Your task to perform on an android device: toggle data saver in the chrome app Image 0: 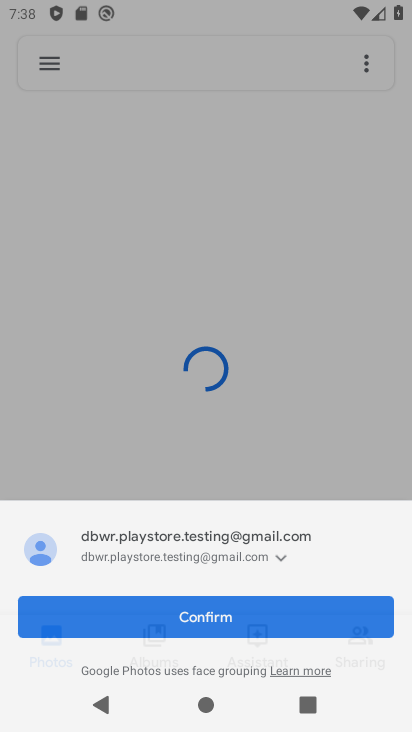
Step 0: press home button
Your task to perform on an android device: toggle data saver in the chrome app Image 1: 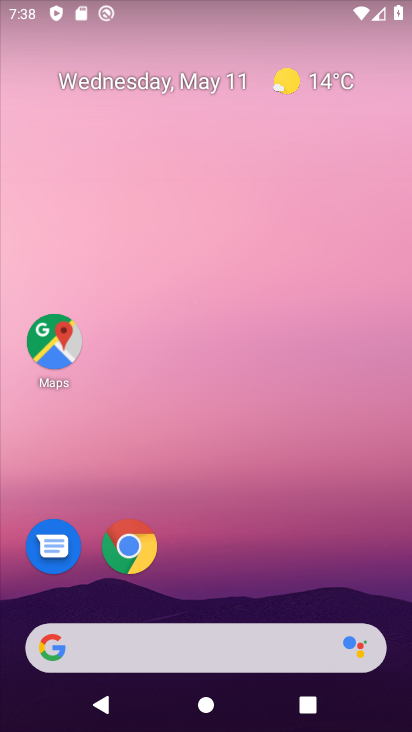
Step 1: click (133, 551)
Your task to perform on an android device: toggle data saver in the chrome app Image 2: 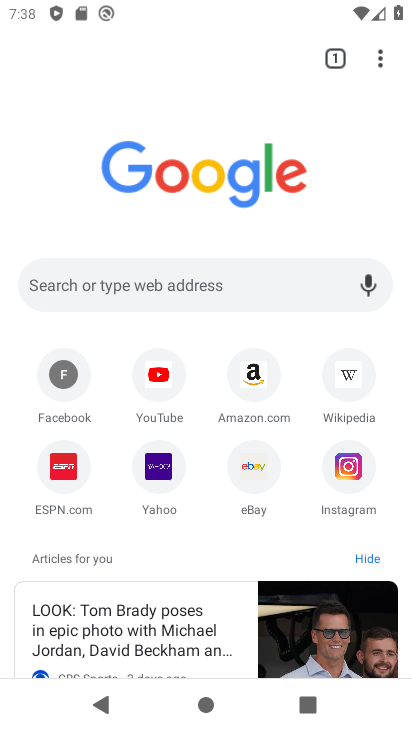
Step 2: drag from (384, 53) to (225, 503)
Your task to perform on an android device: toggle data saver in the chrome app Image 3: 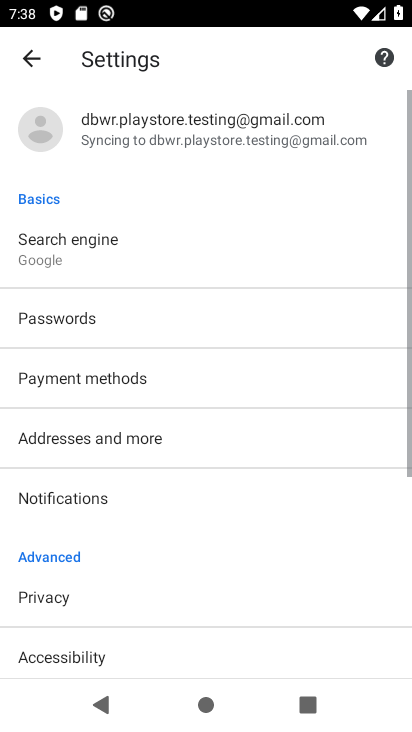
Step 3: drag from (250, 596) to (296, 237)
Your task to perform on an android device: toggle data saver in the chrome app Image 4: 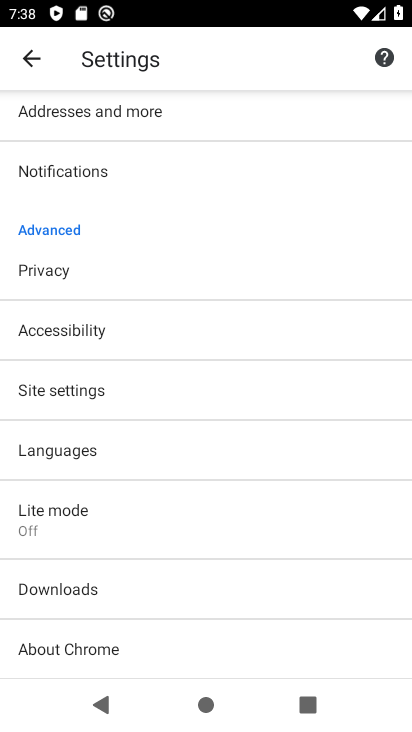
Step 4: click (88, 528)
Your task to perform on an android device: toggle data saver in the chrome app Image 5: 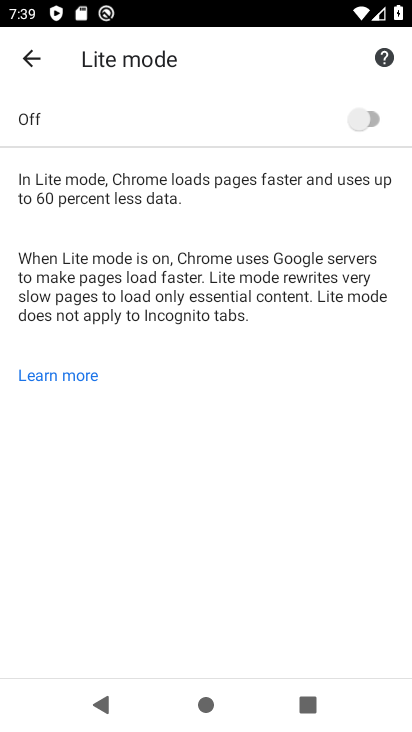
Step 5: click (351, 112)
Your task to perform on an android device: toggle data saver in the chrome app Image 6: 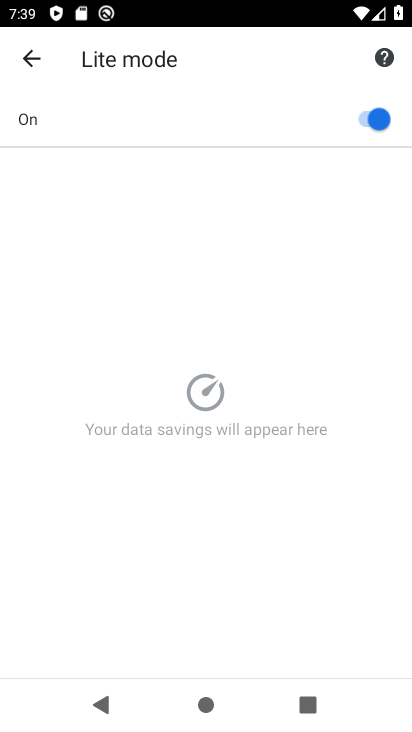
Step 6: task complete